Your task to perform on an android device: toggle javascript in the chrome app Image 0: 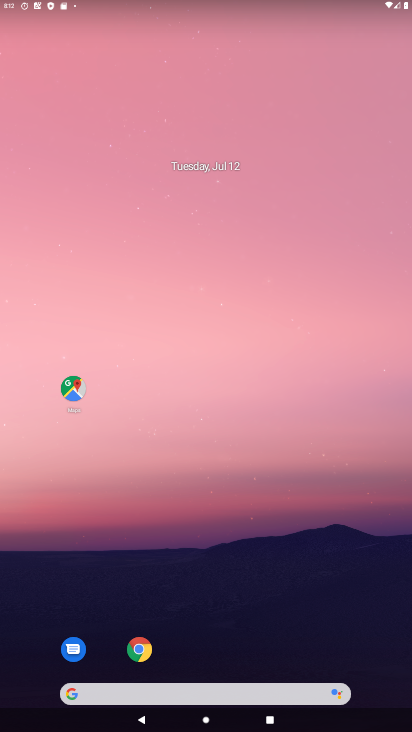
Step 0: drag from (316, 602) to (325, 145)
Your task to perform on an android device: toggle javascript in the chrome app Image 1: 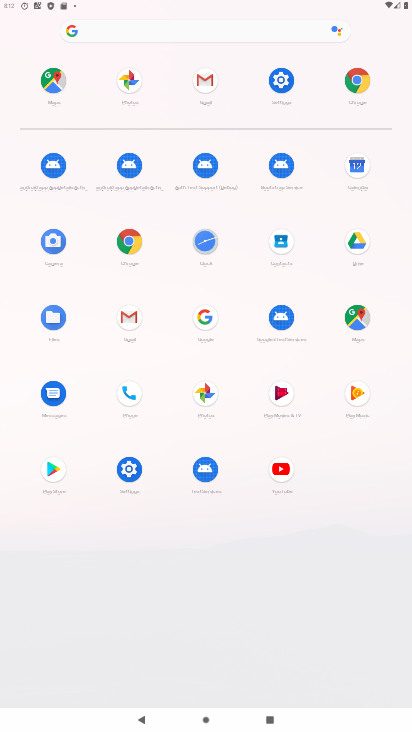
Step 1: click (132, 240)
Your task to perform on an android device: toggle javascript in the chrome app Image 2: 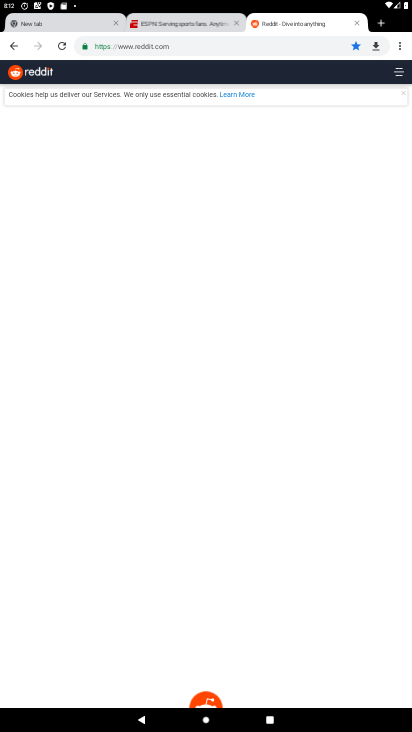
Step 2: drag from (398, 43) to (307, 337)
Your task to perform on an android device: toggle javascript in the chrome app Image 3: 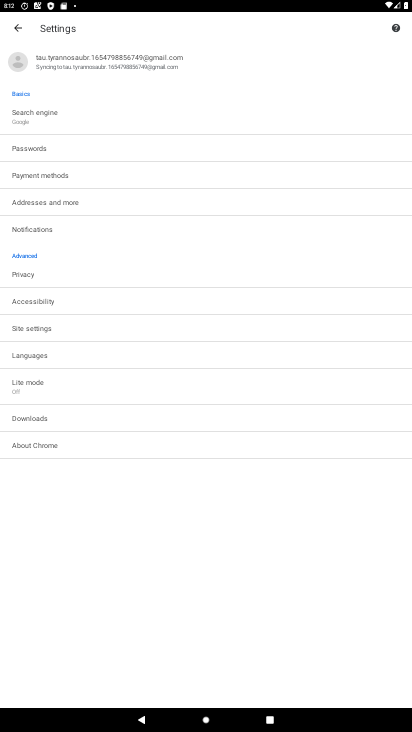
Step 3: click (42, 329)
Your task to perform on an android device: toggle javascript in the chrome app Image 4: 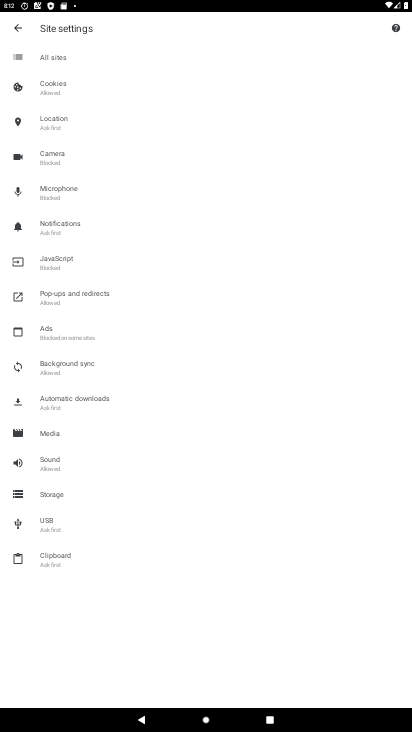
Step 4: click (66, 256)
Your task to perform on an android device: toggle javascript in the chrome app Image 5: 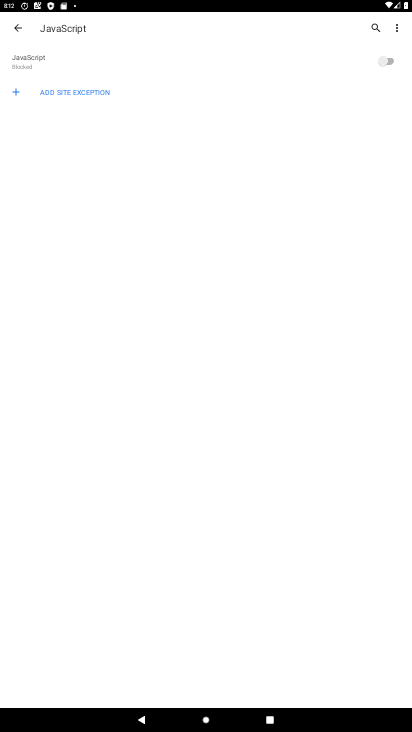
Step 5: click (396, 63)
Your task to perform on an android device: toggle javascript in the chrome app Image 6: 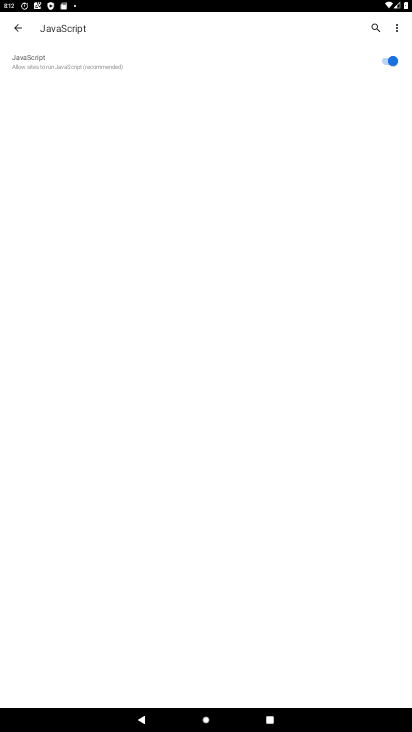
Step 6: task complete